Your task to perform on an android device: Open calendar and show me the third week of next month Image 0: 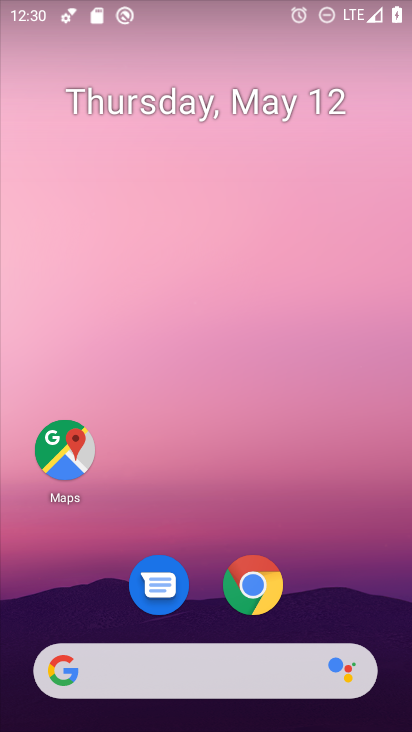
Step 0: drag from (299, 538) to (350, 0)
Your task to perform on an android device: Open calendar and show me the third week of next month Image 1: 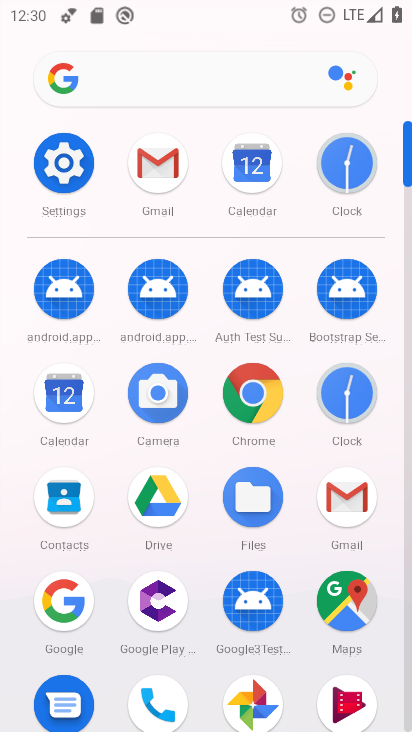
Step 1: click (247, 168)
Your task to perform on an android device: Open calendar and show me the third week of next month Image 2: 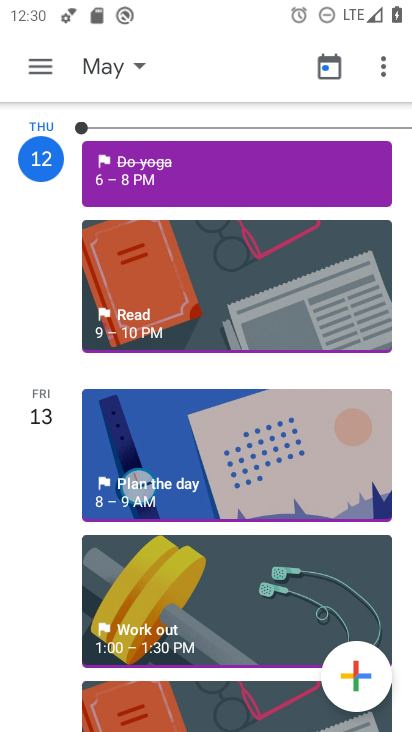
Step 2: click (44, 66)
Your task to perform on an android device: Open calendar and show me the third week of next month Image 3: 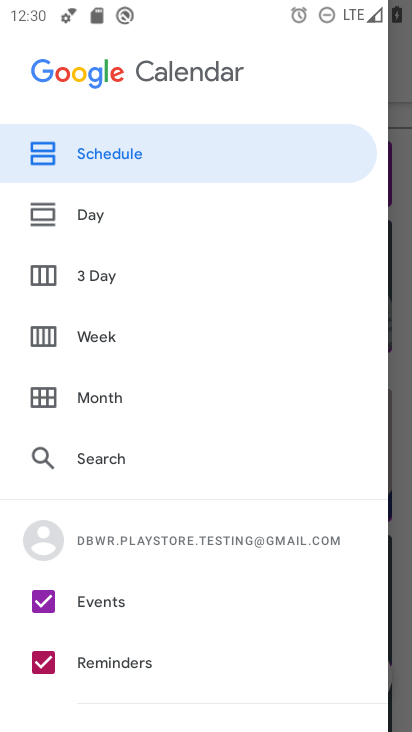
Step 3: click (50, 400)
Your task to perform on an android device: Open calendar and show me the third week of next month Image 4: 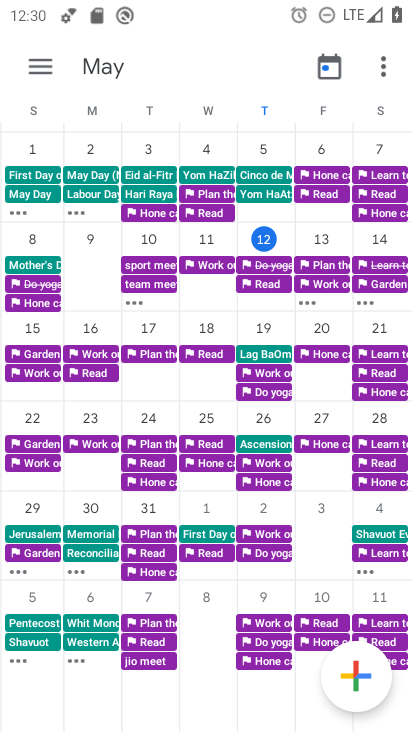
Step 4: drag from (381, 407) to (0, 389)
Your task to perform on an android device: Open calendar and show me the third week of next month Image 5: 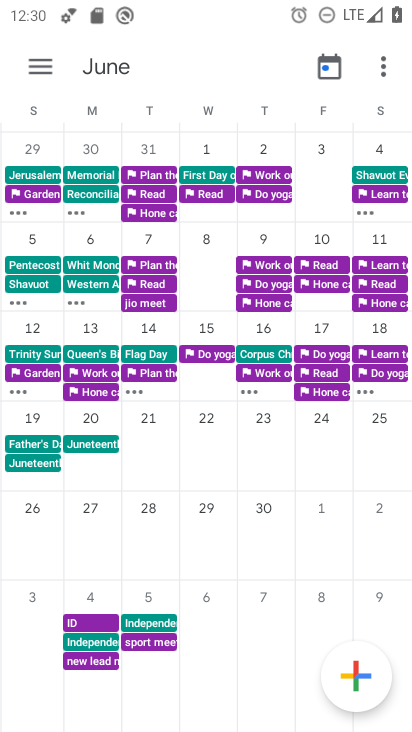
Step 5: click (39, 420)
Your task to perform on an android device: Open calendar and show me the third week of next month Image 6: 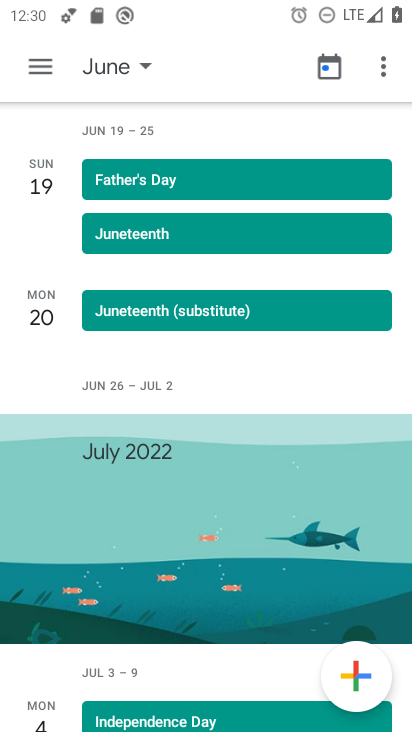
Step 6: click (43, 66)
Your task to perform on an android device: Open calendar and show me the third week of next month Image 7: 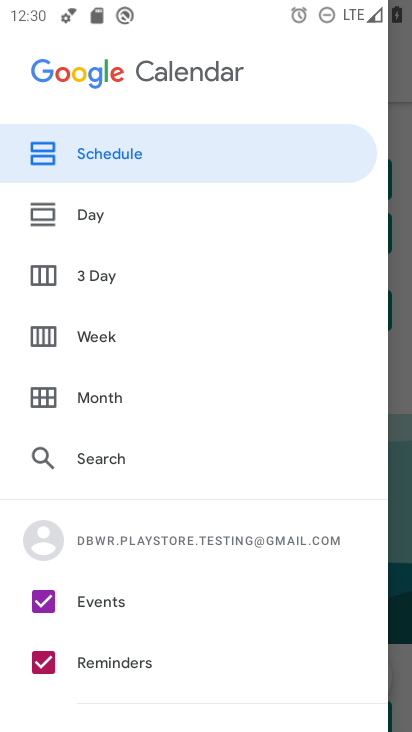
Step 7: click (45, 337)
Your task to perform on an android device: Open calendar and show me the third week of next month Image 8: 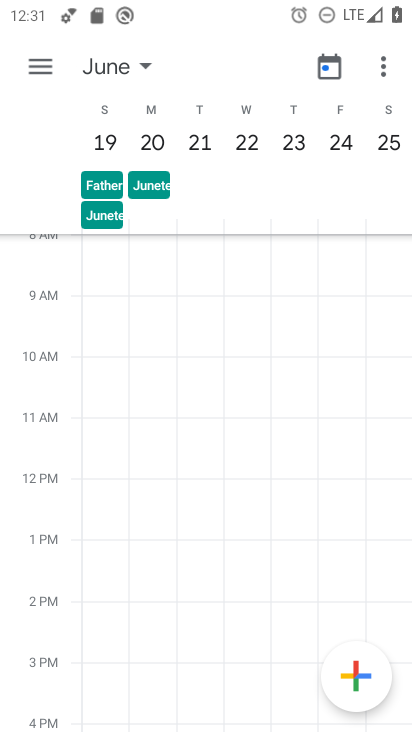
Step 8: task complete